Your task to perform on an android device: Search for pizza restaurants on Maps Image 0: 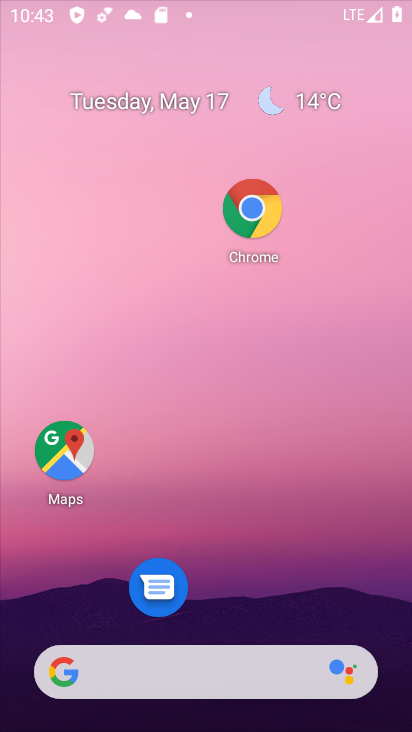
Step 0: drag from (313, 578) to (228, 86)
Your task to perform on an android device: Search for pizza restaurants on Maps Image 1: 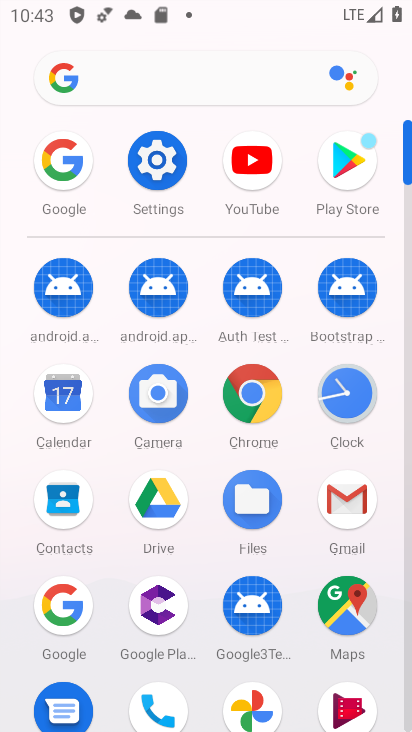
Step 1: click (362, 616)
Your task to perform on an android device: Search for pizza restaurants on Maps Image 2: 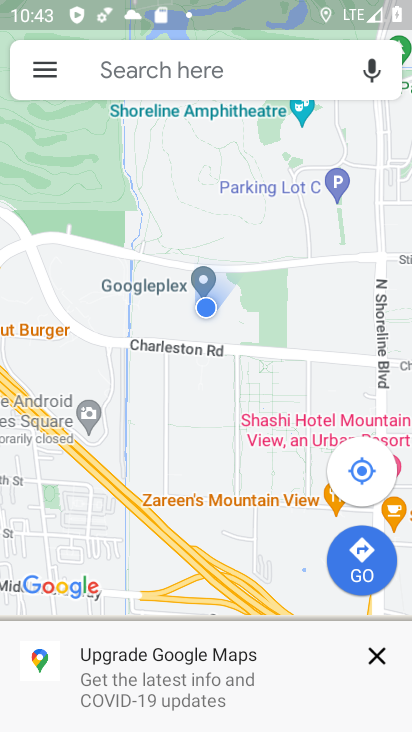
Step 2: click (179, 70)
Your task to perform on an android device: Search for pizza restaurants on Maps Image 3: 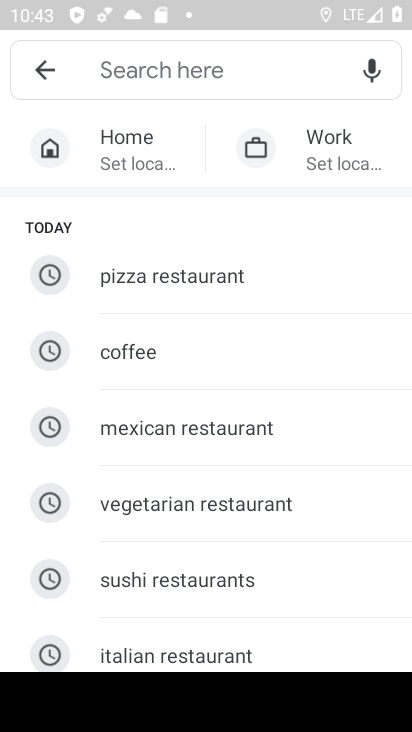
Step 3: click (248, 282)
Your task to perform on an android device: Search for pizza restaurants on Maps Image 4: 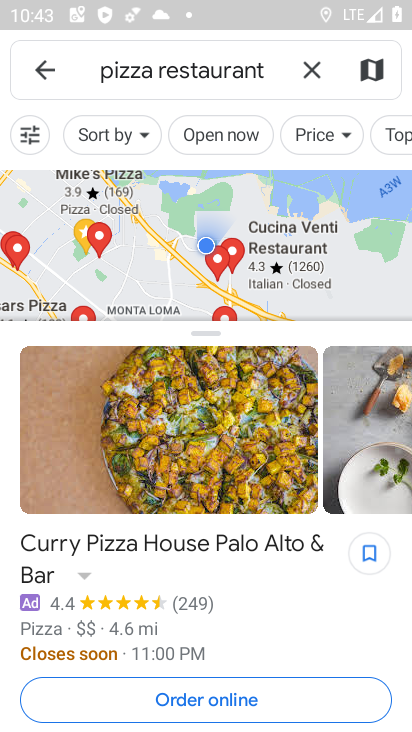
Step 4: task complete